Your task to perform on an android device: check the backup settings in the google photos Image 0: 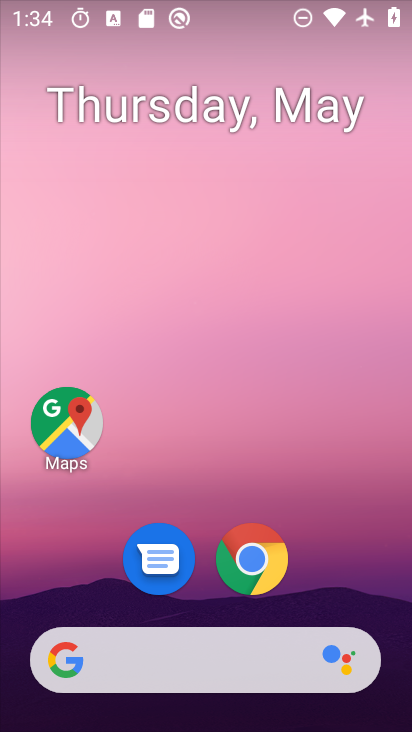
Step 0: drag from (216, 652) to (216, 278)
Your task to perform on an android device: check the backup settings in the google photos Image 1: 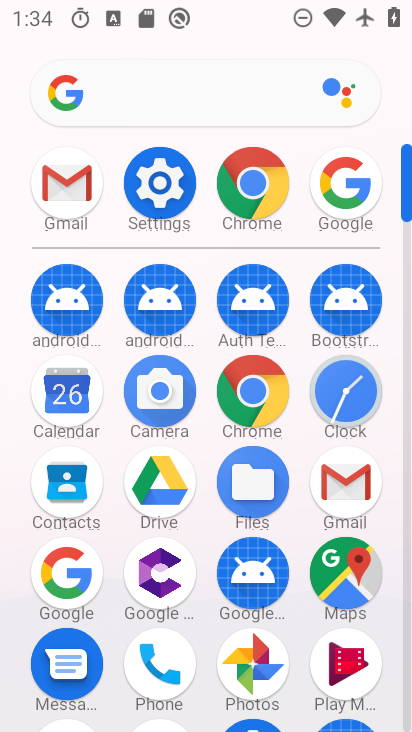
Step 1: drag from (207, 498) to (263, 263)
Your task to perform on an android device: check the backup settings in the google photos Image 2: 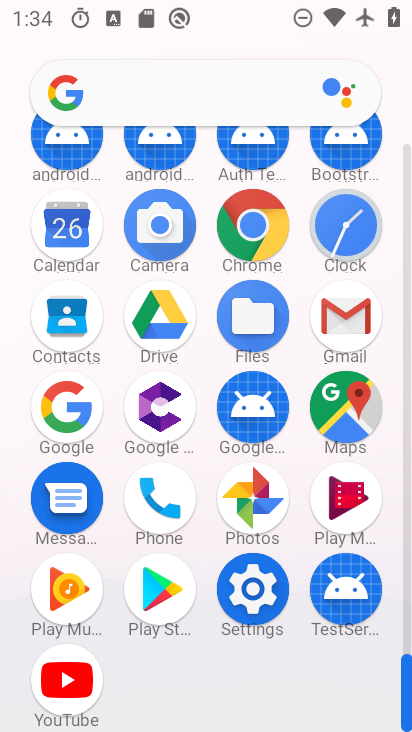
Step 2: click (260, 506)
Your task to perform on an android device: check the backup settings in the google photos Image 3: 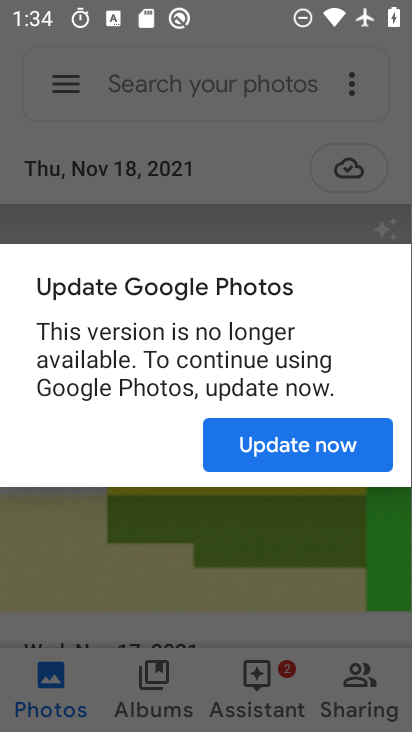
Step 3: click (269, 142)
Your task to perform on an android device: check the backup settings in the google photos Image 4: 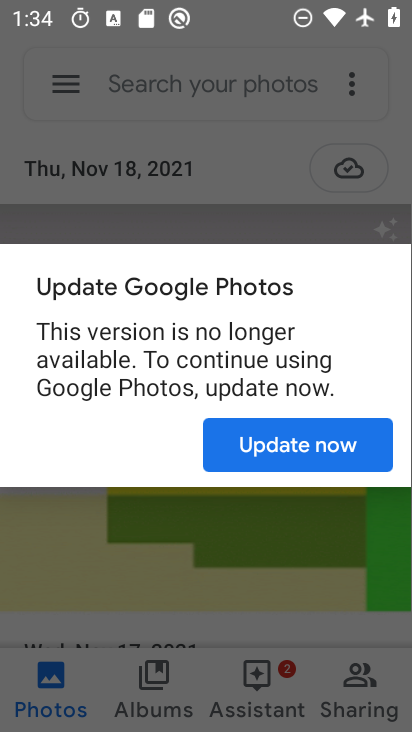
Step 4: click (224, 582)
Your task to perform on an android device: check the backup settings in the google photos Image 5: 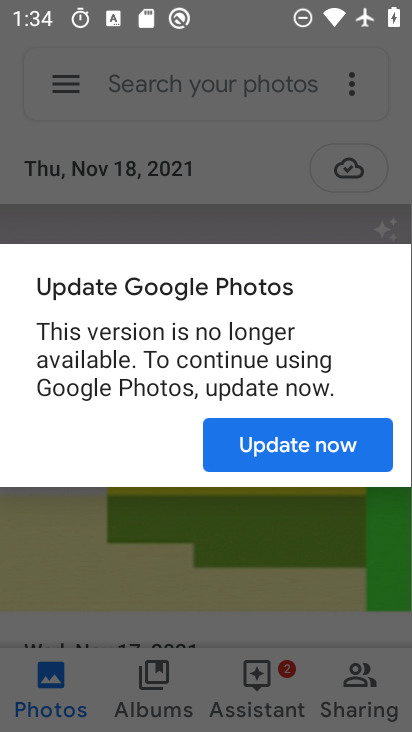
Step 5: click (224, 582)
Your task to perform on an android device: check the backup settings in the google photos Image 6: 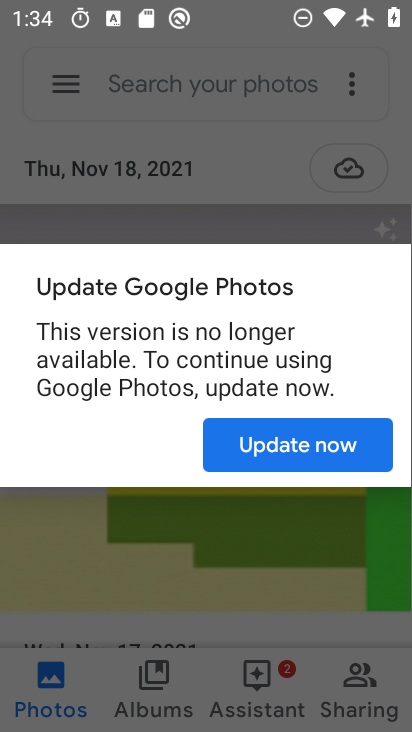
Step 6: task complete